Your task to perform on an android device: Open CNN.com Image 0: 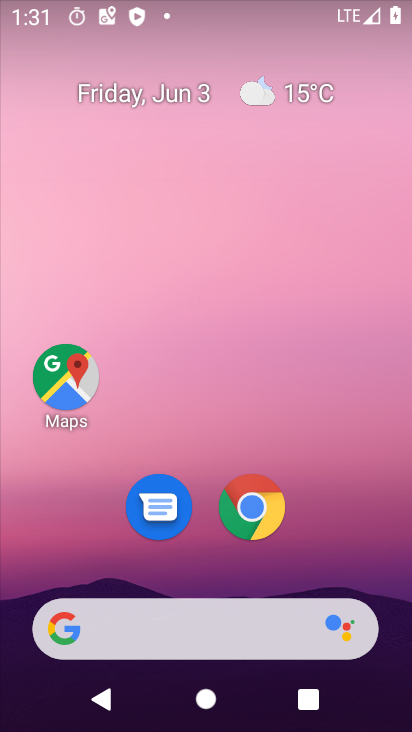
Step 0: drag from (392, 589) to (406, 367)
Your task to perform on an android device: Open CNN.com Image 1: 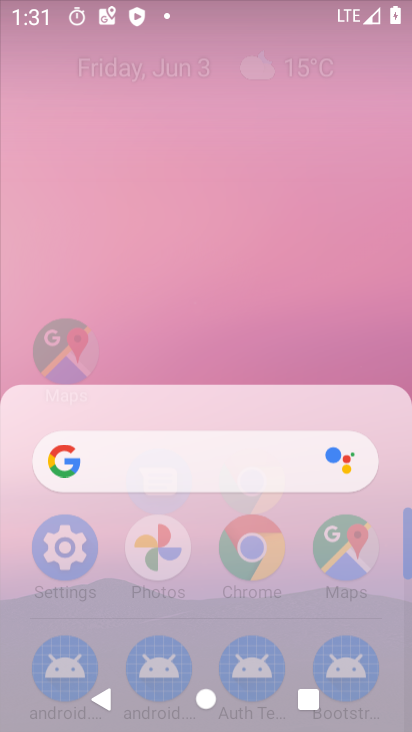
Step 1: drag from (329, 68) to (299, 14)
Your task to perform on an android device: Open CNN.com Image 2: 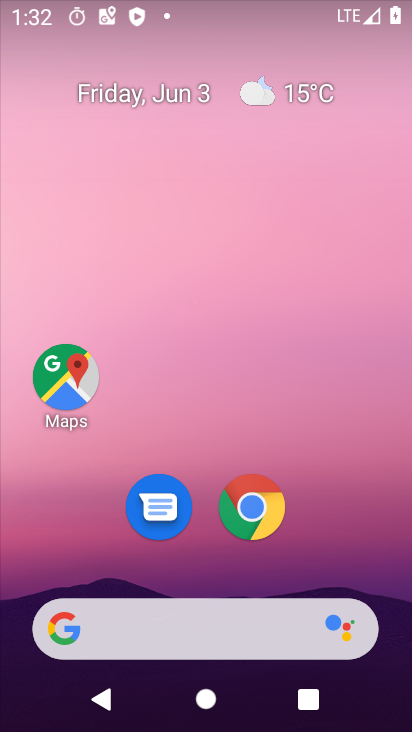
Step 2: drag from (390, 636) to (331, 21)
Your task to perform on an android device: Open CNN.com Image 3: 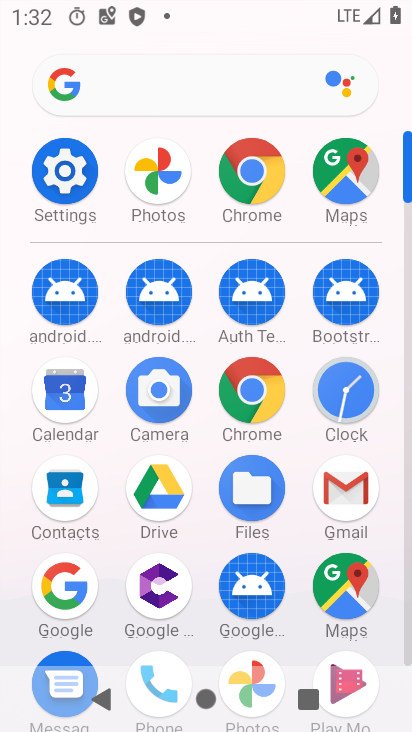
Step 3: click (71, 578)
Your task to perform on an android device: Open CNN.com Image 4: 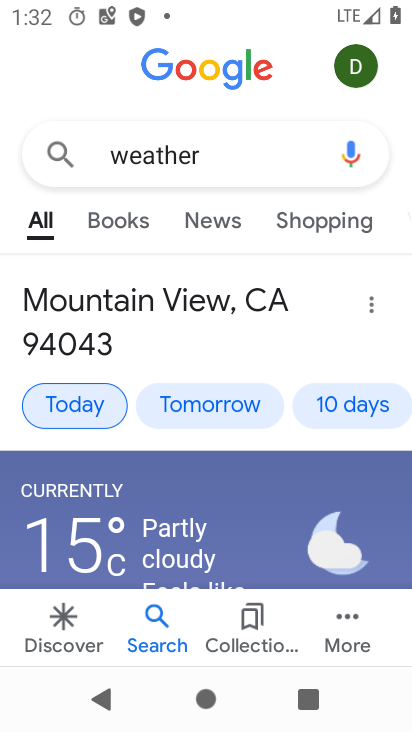
Step 4: press back button
Your task to perform on an android device: Open CNN.com Image 5: 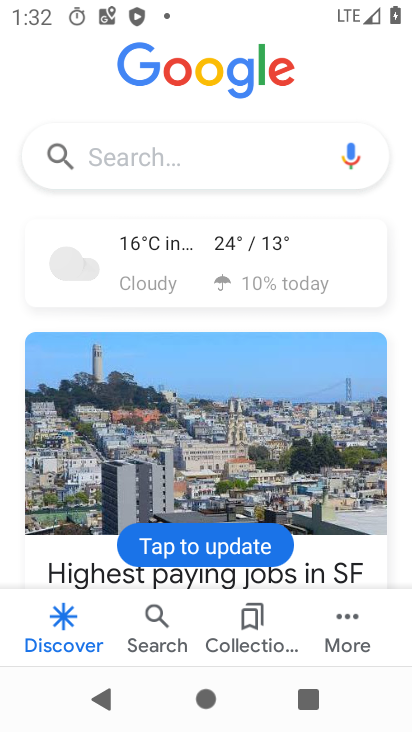
Step 5: click (172, 160)
Your task to perform on an android device: Open CNN.com Image 6: 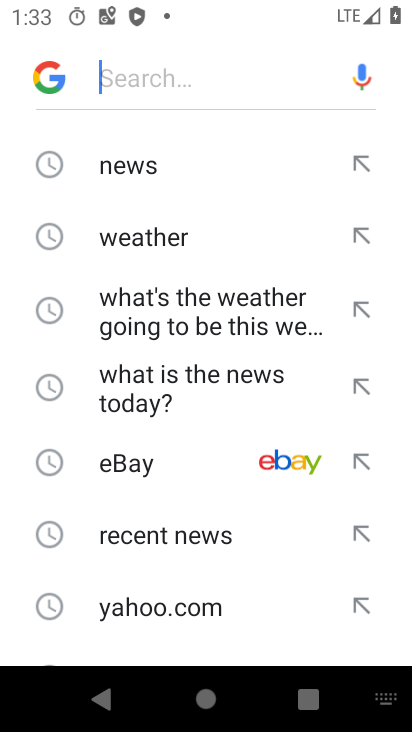
Step 6: drag from (155, 593) to (219, 163)
Your task to perform on an android device: Open CNN.com Image 7: 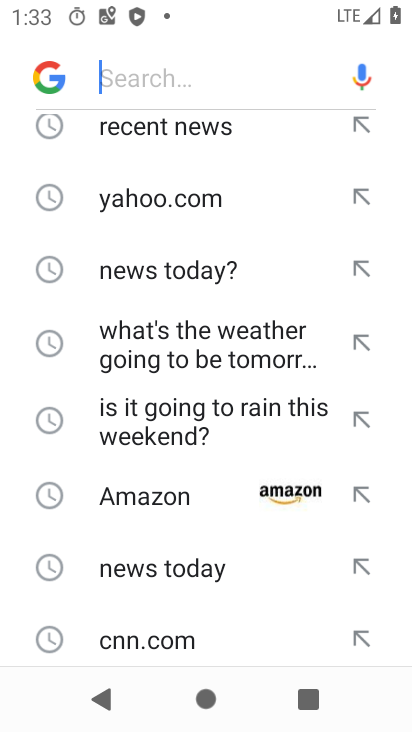
Step 7: drag from (206, 554) to (221, 189)
Your task to perform on an android device: Open CNN.com Image 8: 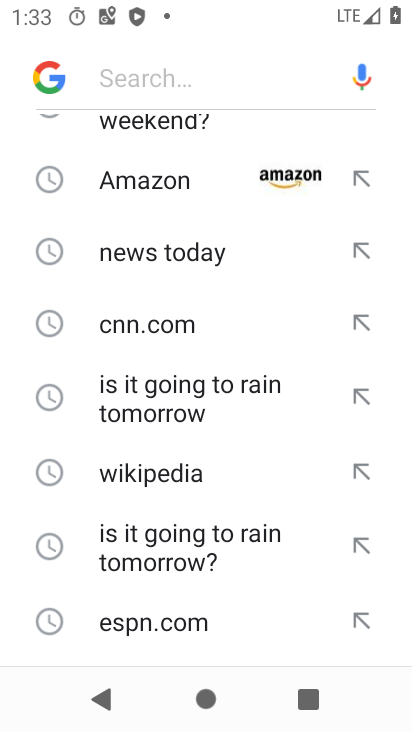
Step 8: click (185, 324)
Your task to perform on an android device: Open CNN.com Image 9: 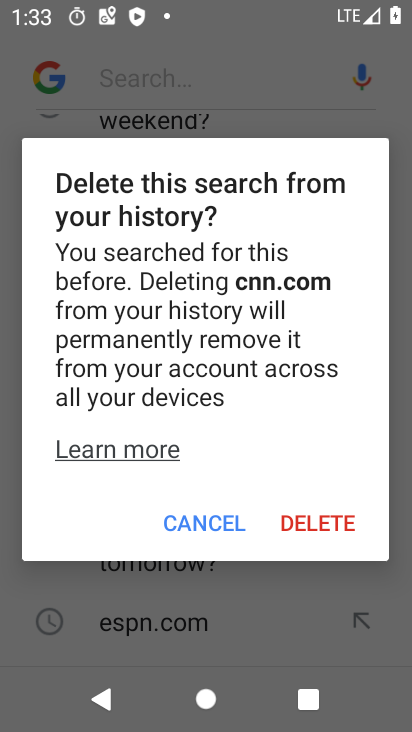
Step 9: click (239, 520)
Your task to perform on an android device: Open CNN.com Image 10: 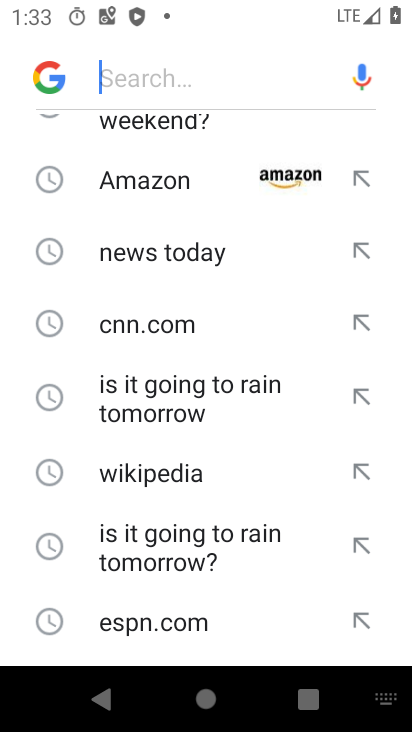
Step 10: click (182, 300)
Your task to perform on an android device: Open CNN.com Image 11: 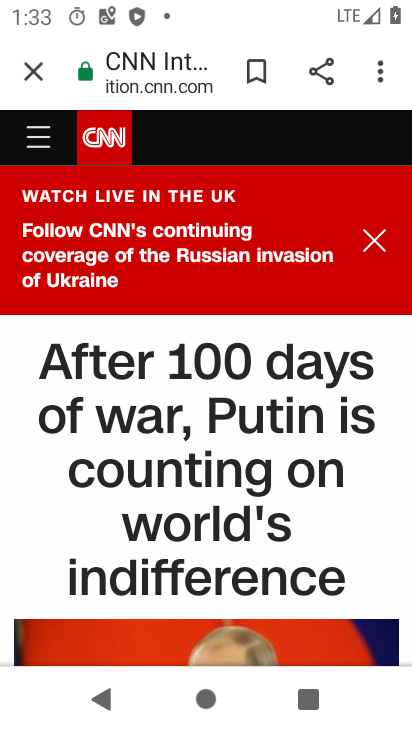
Step 11: task complete